Your task to perform on an android device: turn vacation reply on in the gmail app Image 0: 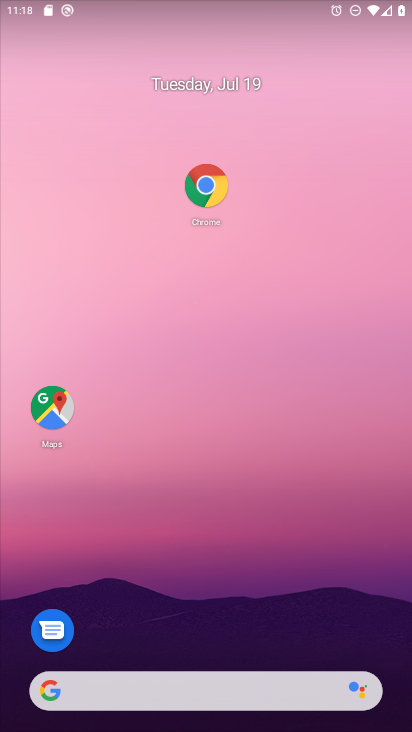
Step 0: drag from (240, 653) to (286, 235)
Your task to perform on an android device: turn vacation reply on in the gmail app Image 1: 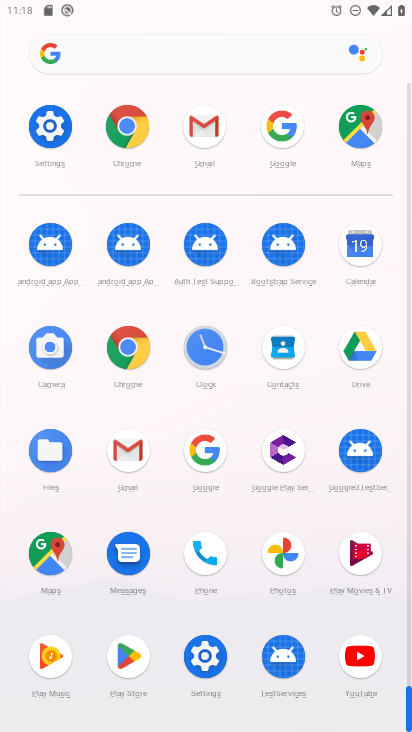
Step 1: click (134, 444)
Your task to perform on an android device: turn vacation reply on in the gmail app Image 2: 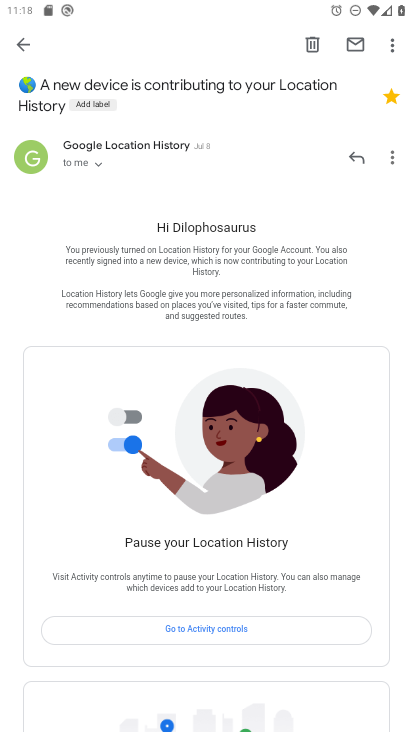
Step 2: click (32, 34)
Your task to perform on an android device: turn vacation reply on in the gmail app Image 3: 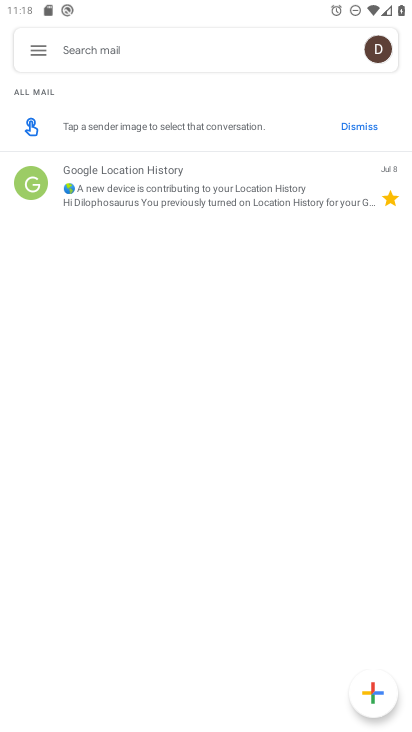
Step 3: click (42, 61)
Your task to perform on an android device: turn vacation reply on in the gmail app Image 4: 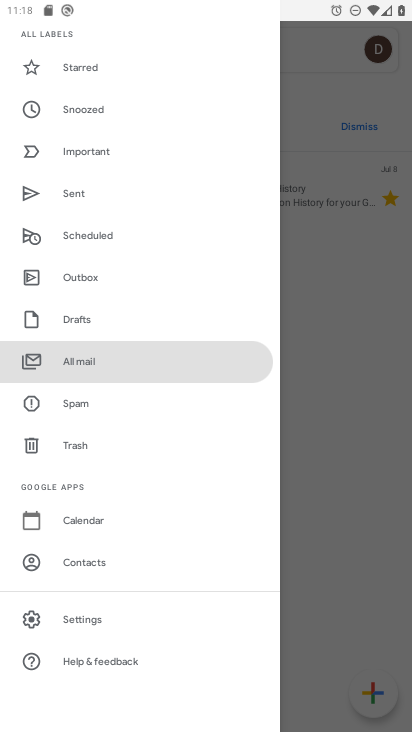
Step 4: click (97, 625)
Your task to perform on an android device: turn vacation reply on in the gmail app Image 5: 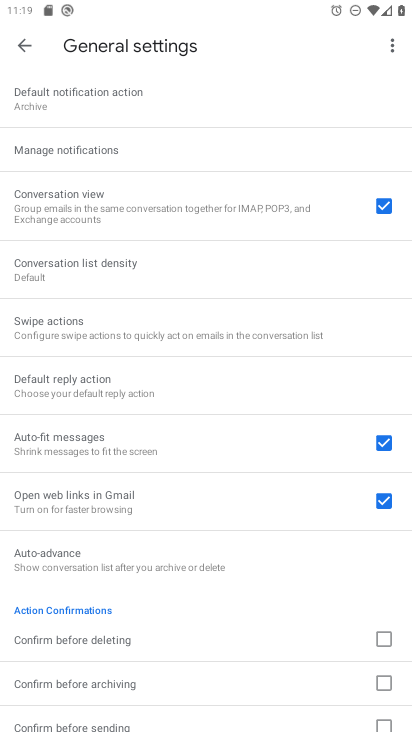
Step 5: click (15, 60)
Your task to perform on an android device: turn vacation reply on in the gmail app Image 6: 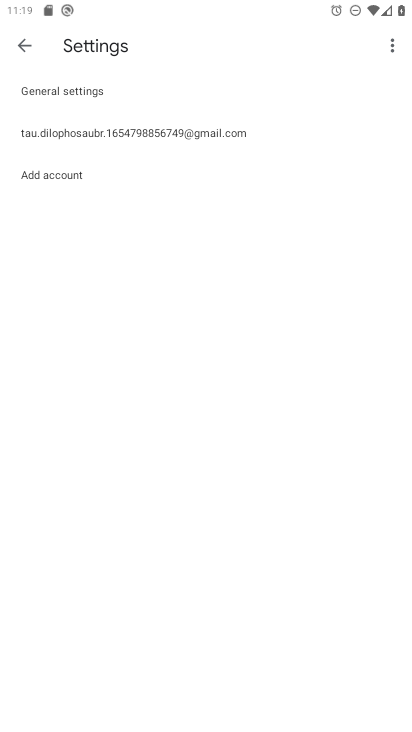
Step 6: click (97, 137)
Your task to perform on an android device: turn vacation reply on in the gmail app Image 7: 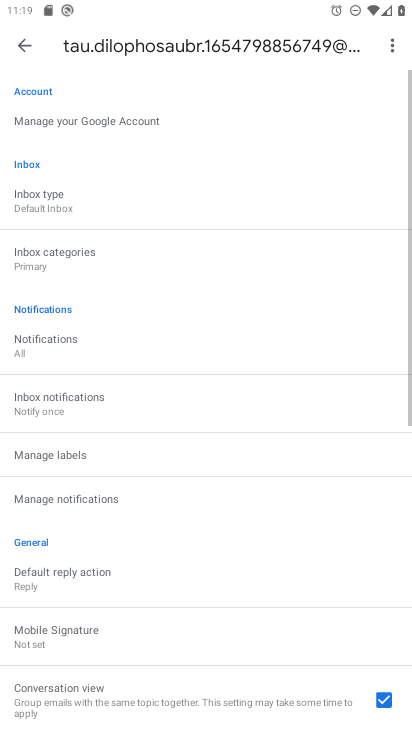
Step 7: drag from (162, 592) to (201, 210)
Your task to perform on an android device: turn vacation reply on in the gmail app Image 8: 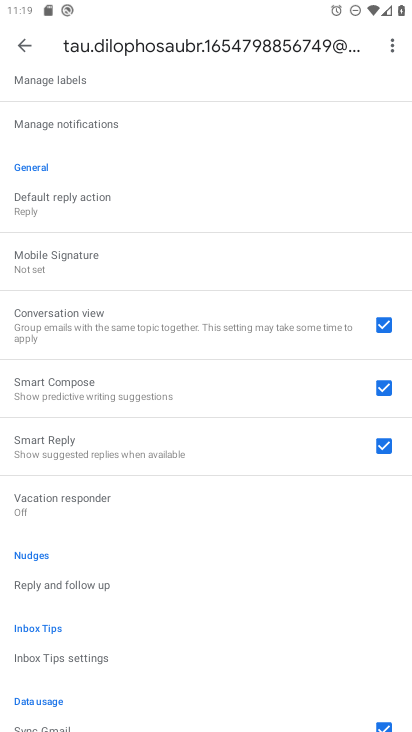
Step 8: click (130, 514)
Your task to perform on an android device: turn vacation reply on in the gmail app Image 9: 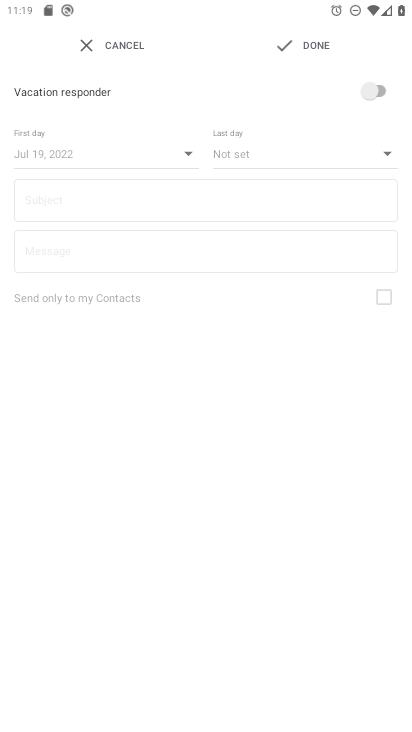
Step 9: click (379, 98)
Your task to perform on an android device: turn vacation reply on in the gmail app Image 10: 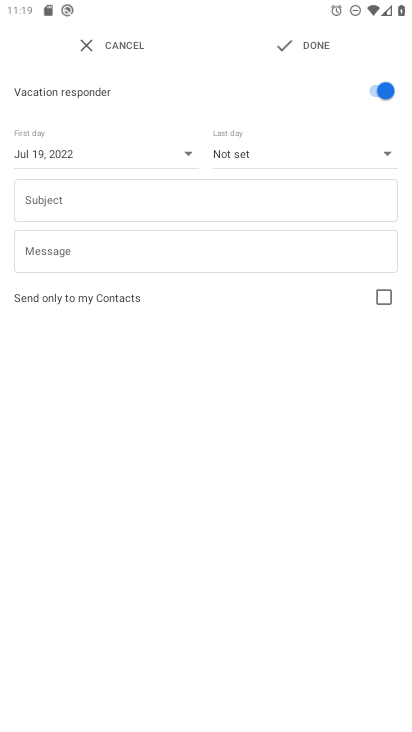
Step 10: task complete